Your task to perform on an android device: find snoozed emails in the gmail app Image 0: 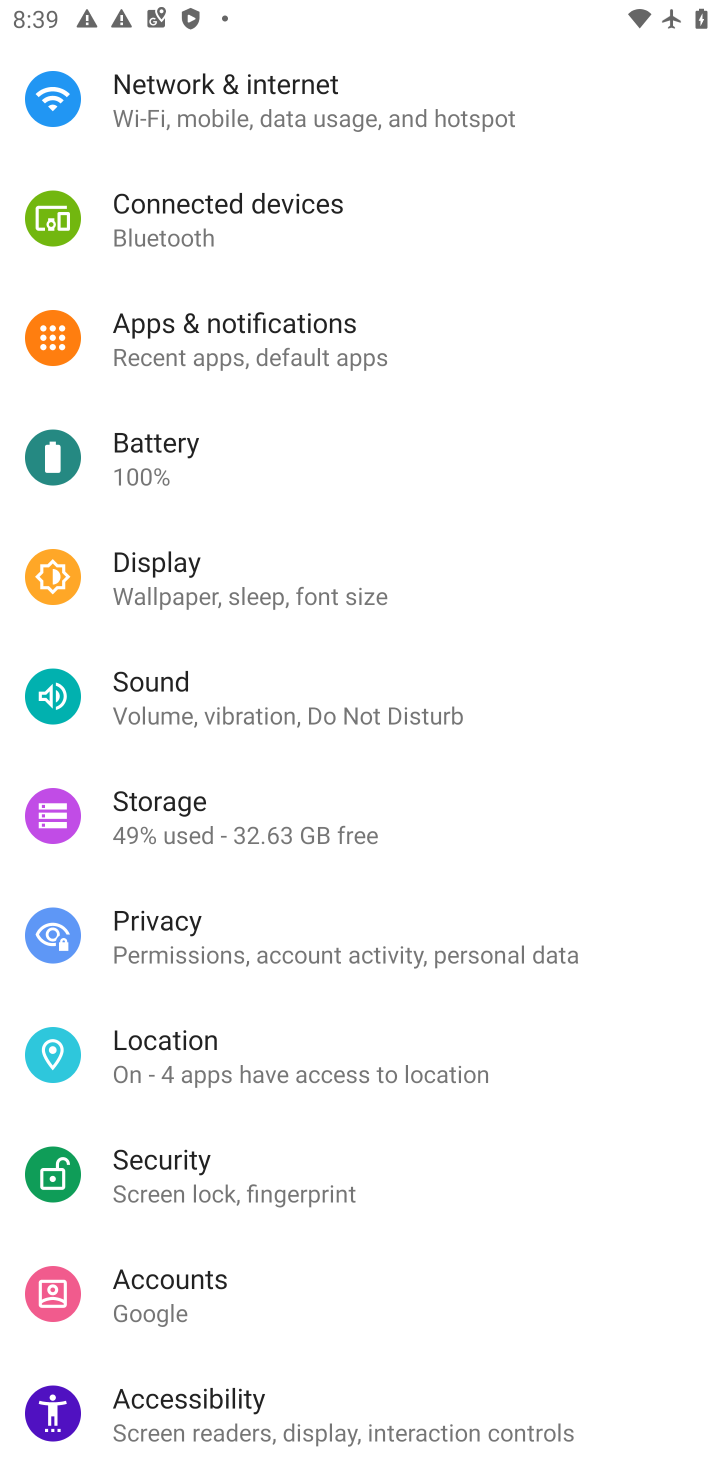
Step 0: press home button
Your task to perform on an android device: find snoozed emails in the gmail app Image 1: 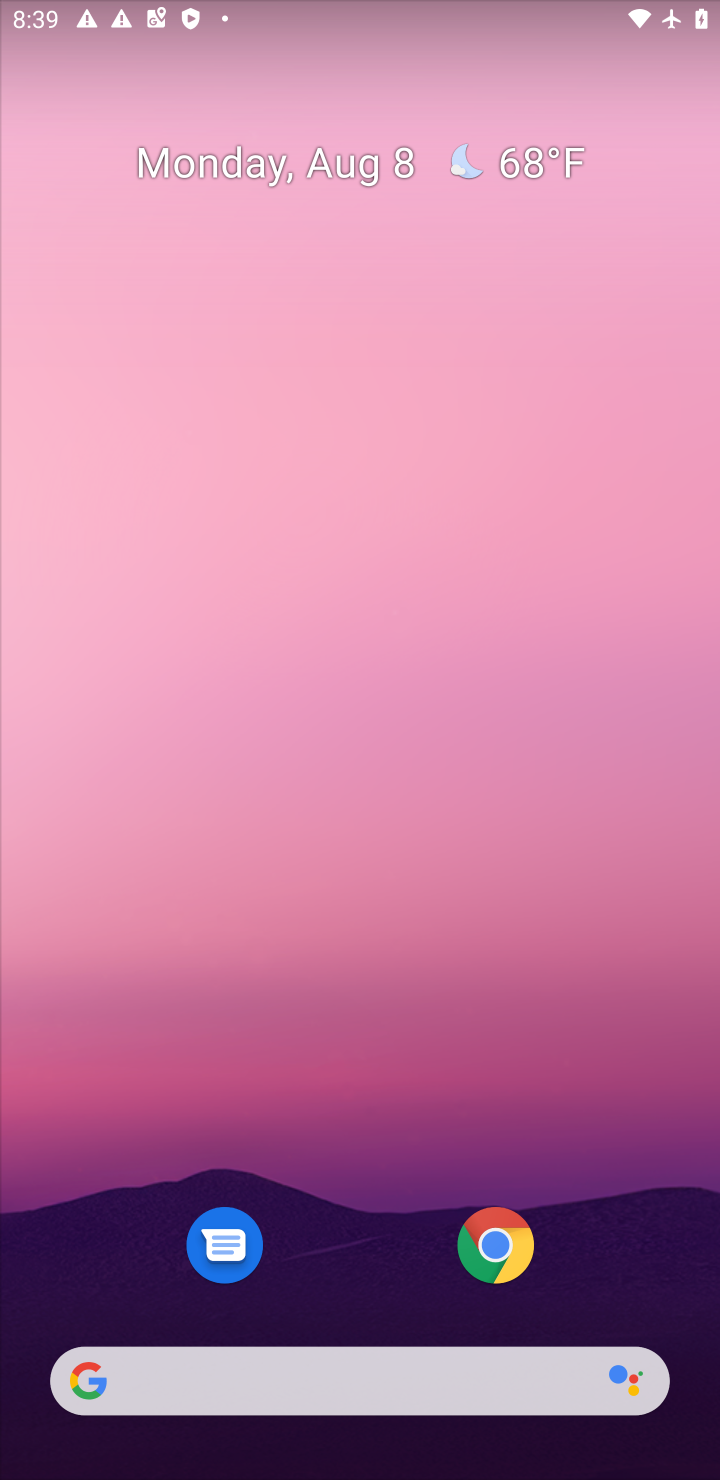
Step 1: drag from (362, 1030) to (413, 7)
Your task to perform on an android device: find snoozed emails in the gmail app Image 2: 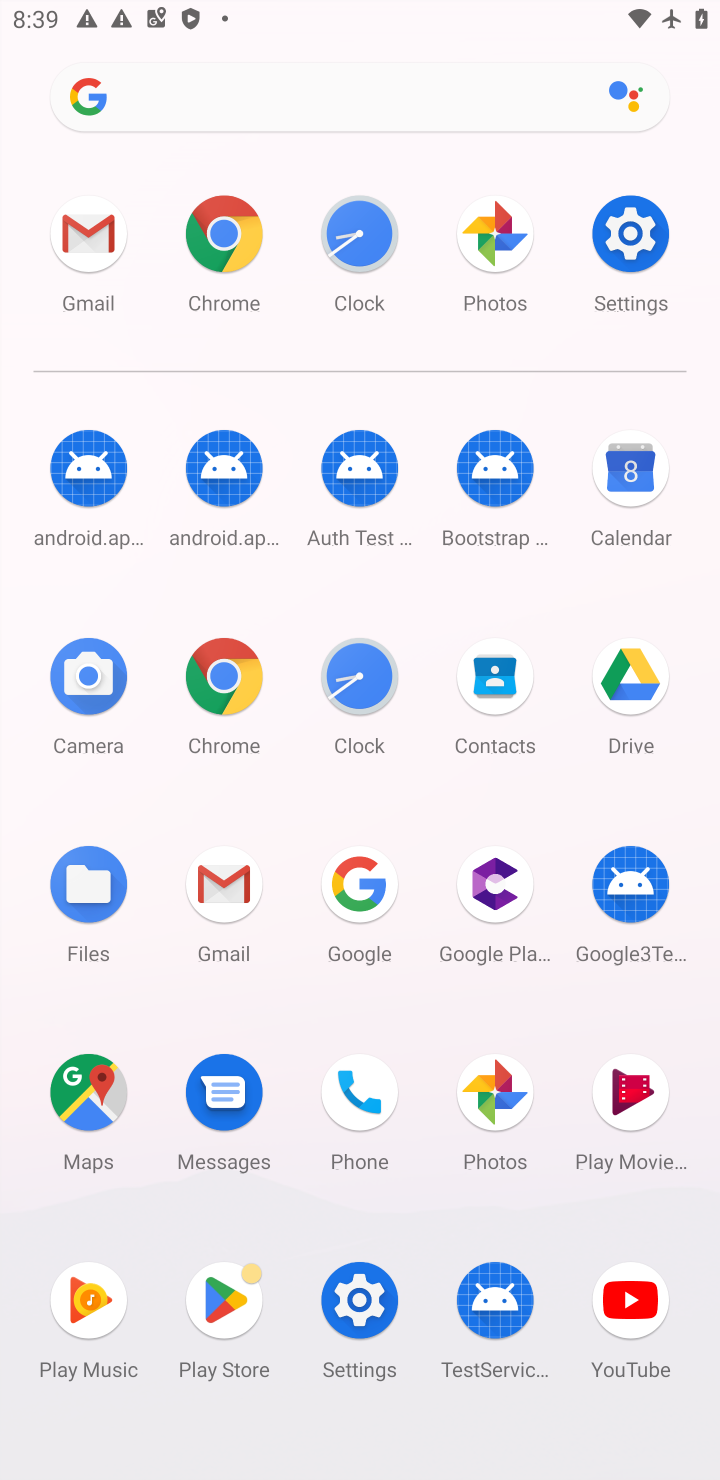
Step 2: click (233, 922)
Your task to perform on an android device: find snoozed emails in the gmail app Image 3: 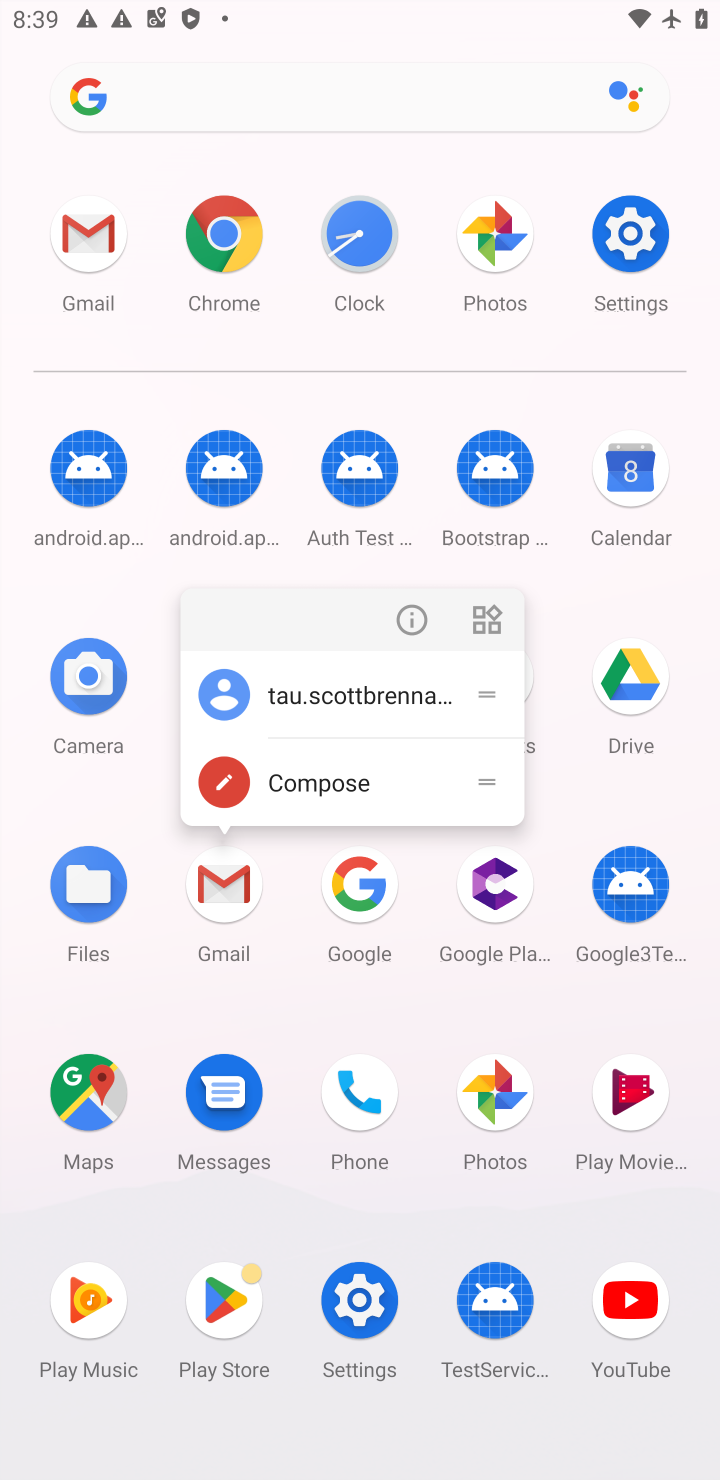
Step 3: click (219, 936)
Your task to perform on an android device: find snoozed emails in the gmail app Image 4: 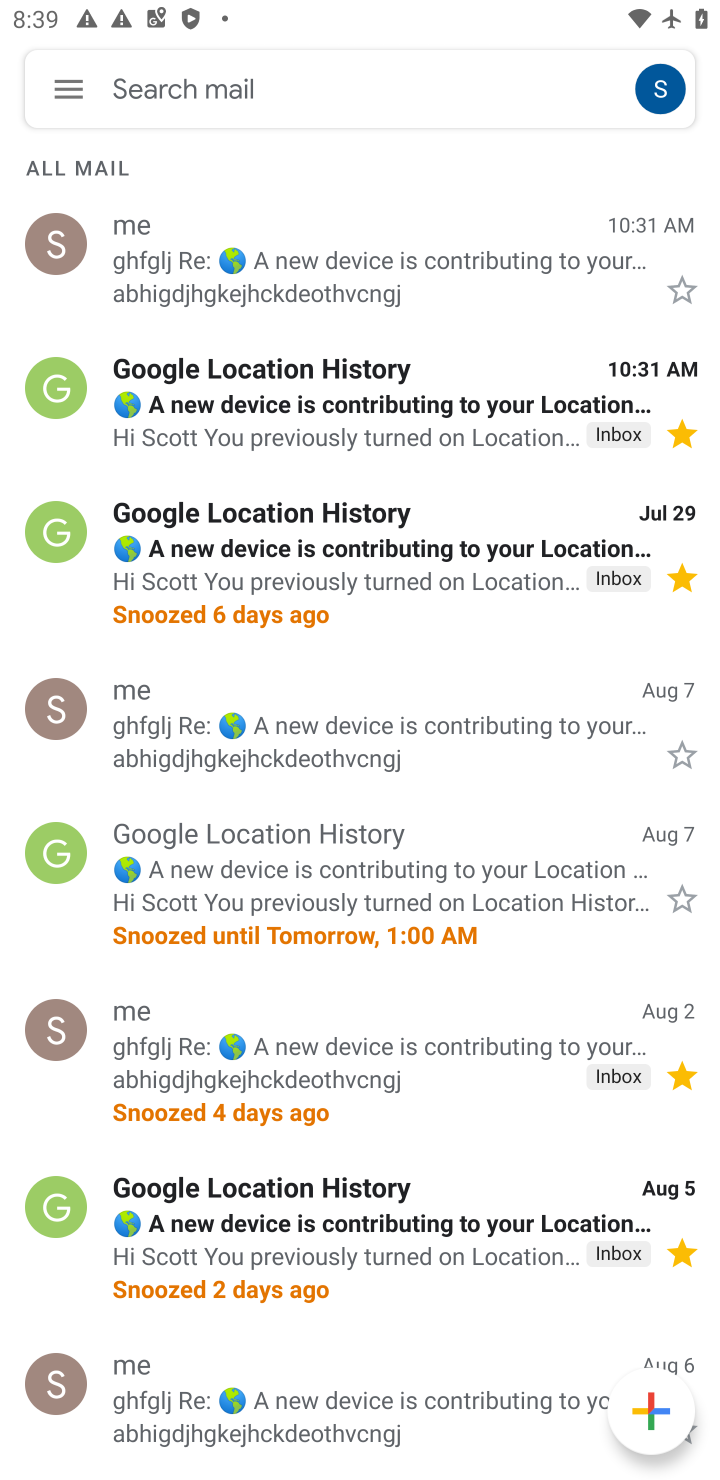
Step 4: click (65, 82)
Your task to perform on an android device: find snoozed emails in the gmail app Image 5: 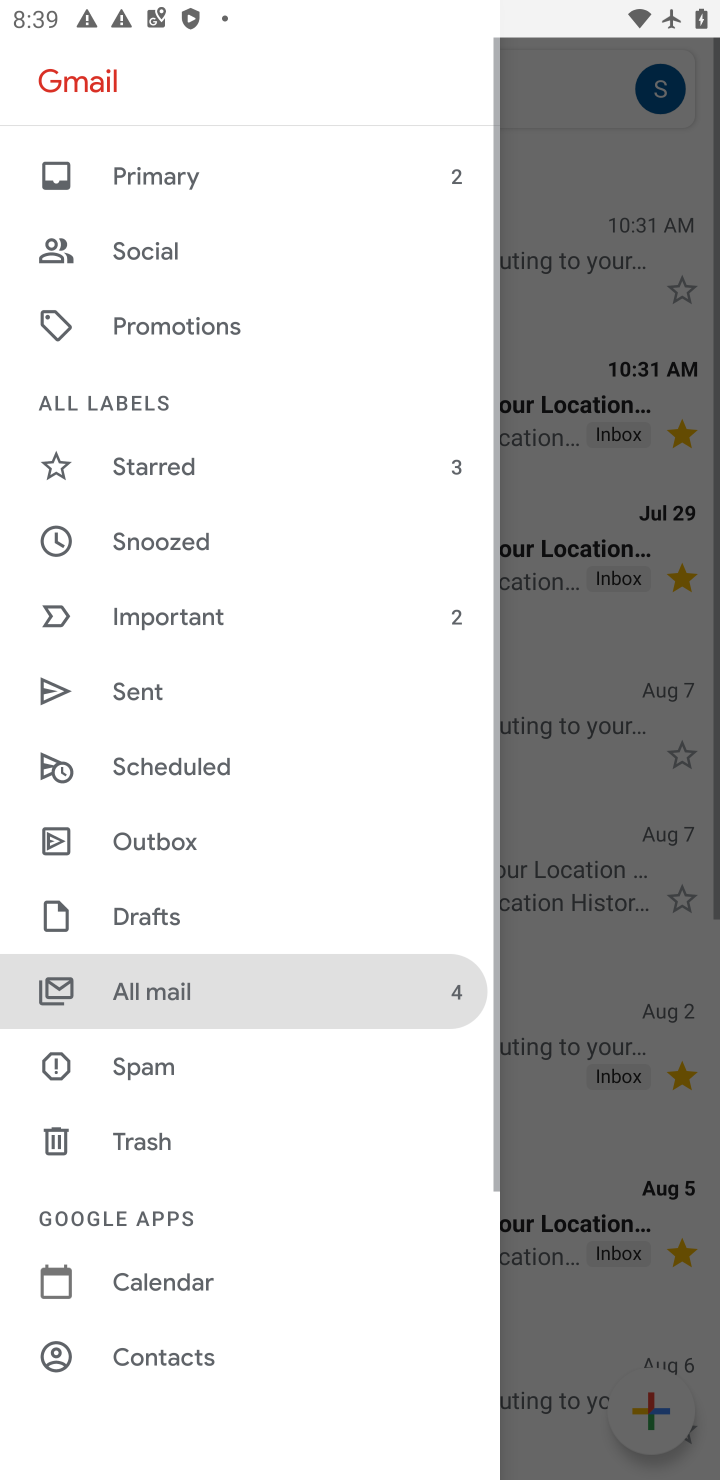
Step 5: drag from (139, 247) to (183, 668)
Your task to perform on an android device: find snoozed emails in the gmail app Image 6: 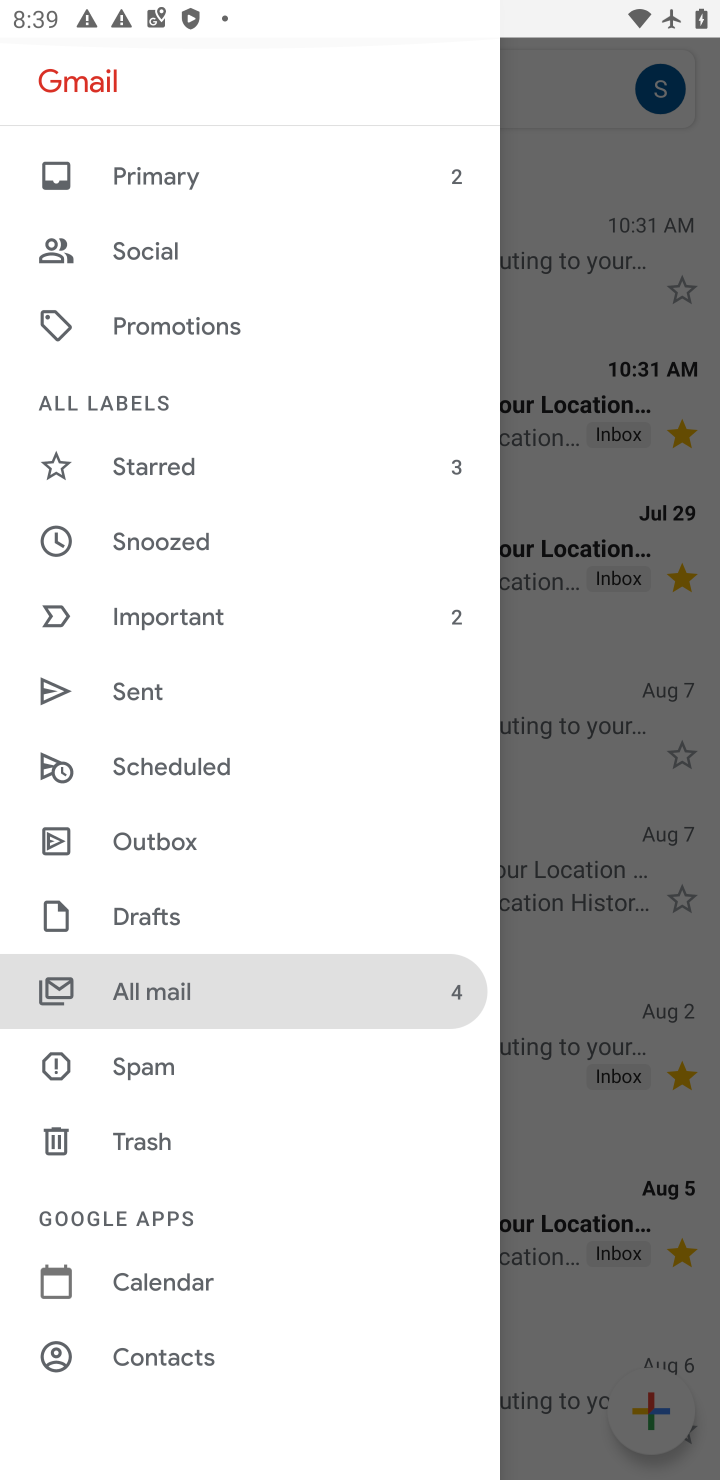
Step 6: click (181, 460)
Your task to perform on an android device: find snoozed emails in the gmail app Image 7: 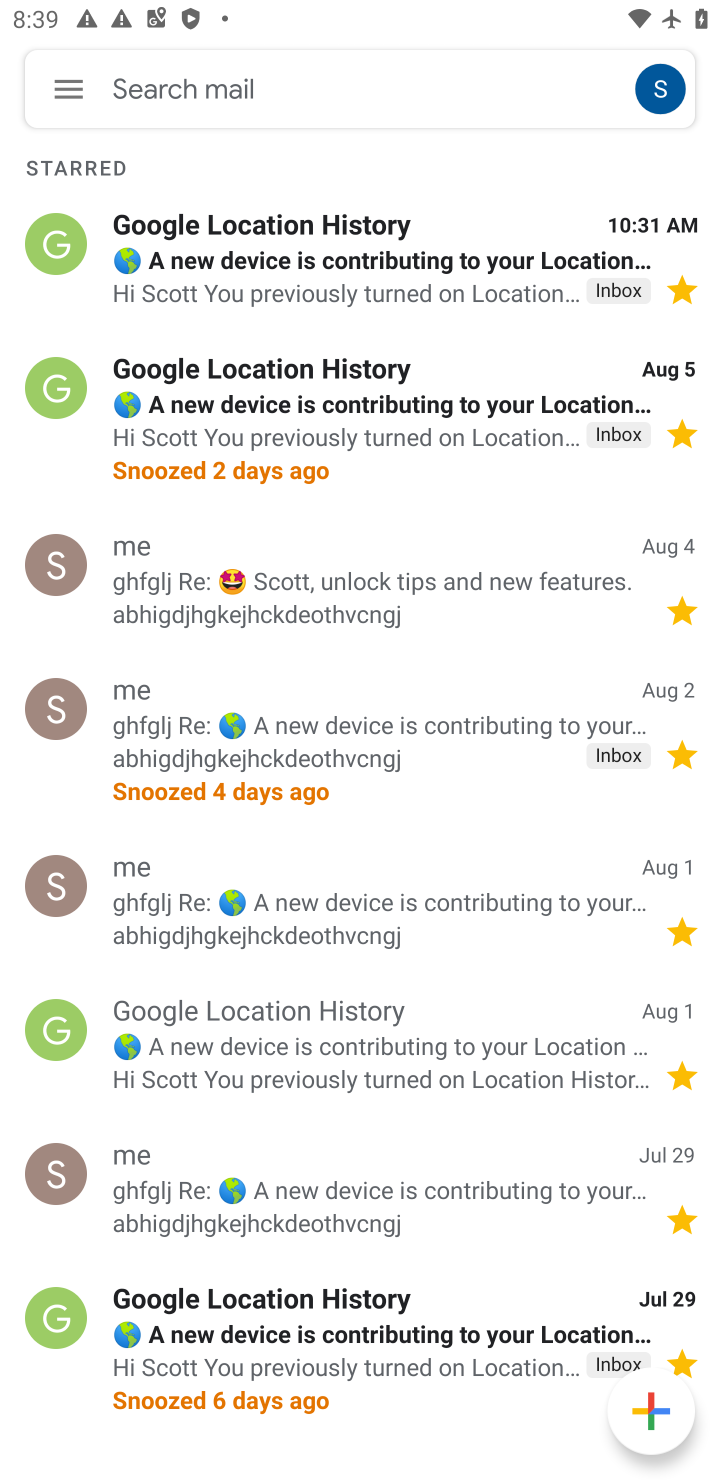
Step 7: click (65, 73)
Your task to perform on an android device: find snoozed emails in the gmail app Image 8: 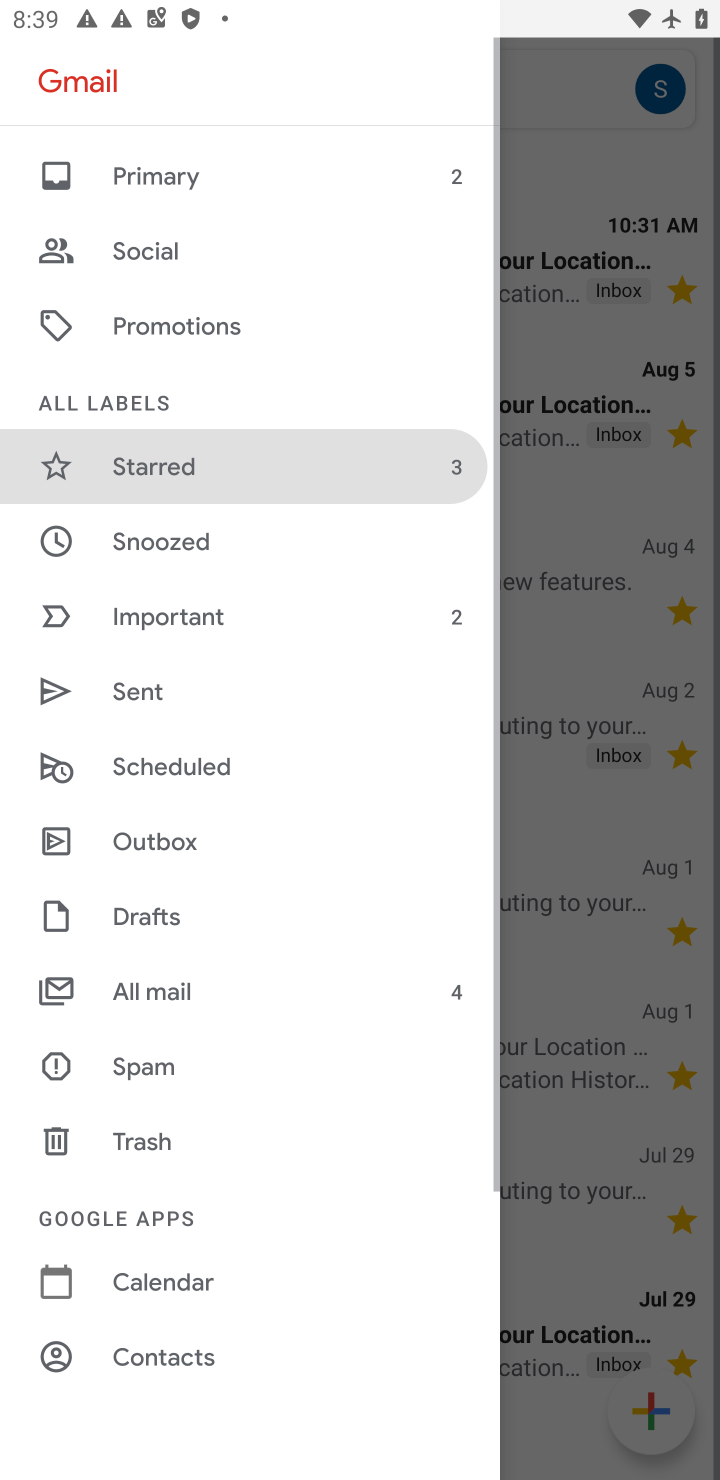
Step 8: click (180, 550)
Your task to perform on an android device: find snoozed emails in the gmail app Image 9: 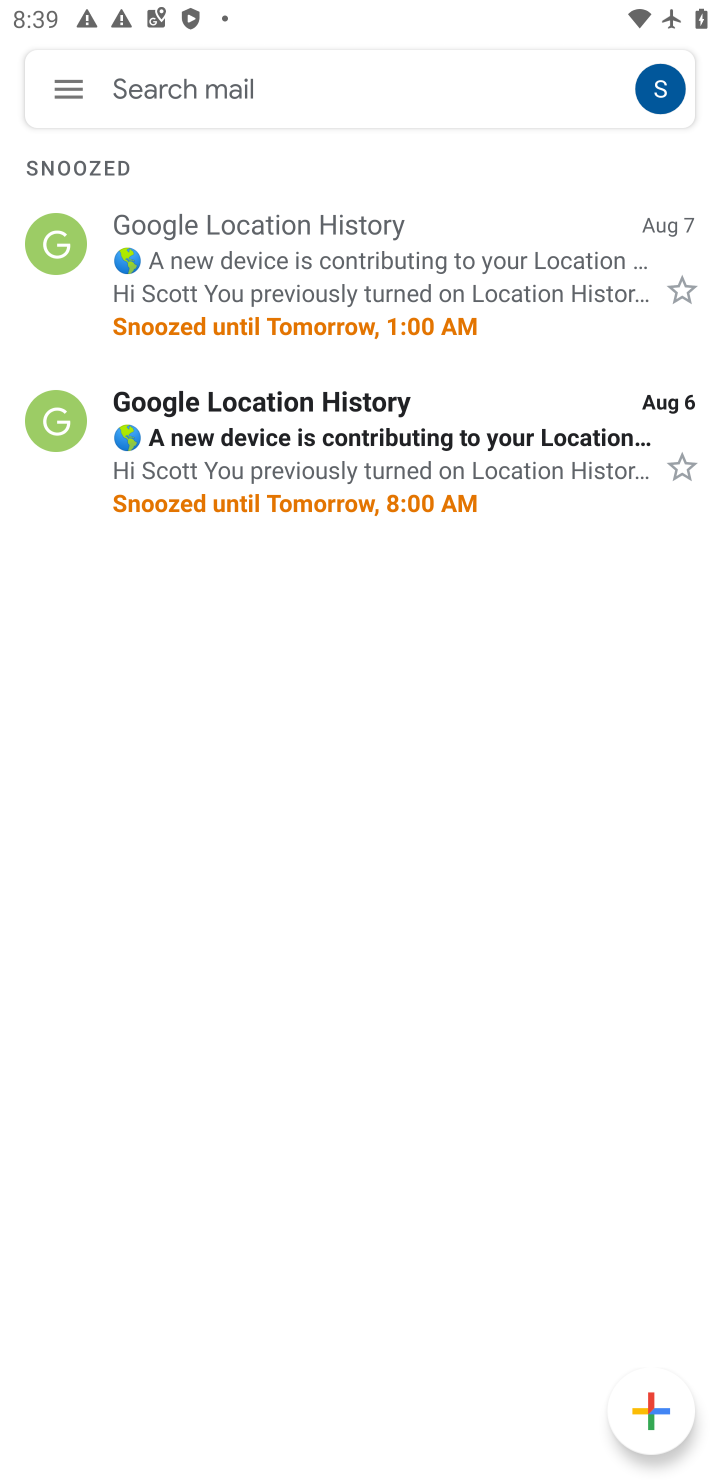
Step 9: task complete